Your task to perform on an android device: open a bookmark in the chrome app Image 0: 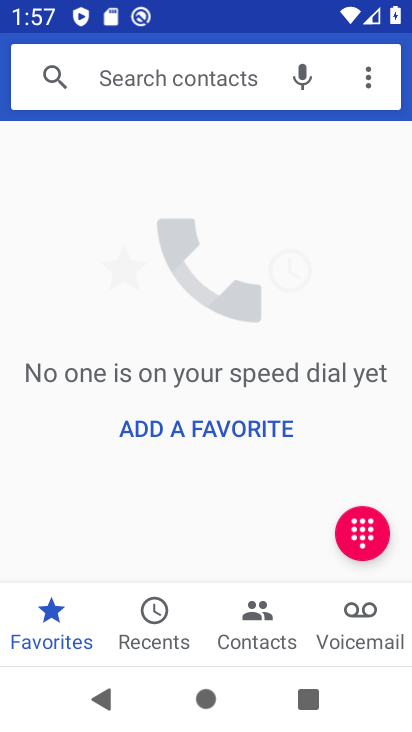
Step 0: press home button
Your task to perform on an android device: open a bookmark in the chrome app Image 1: 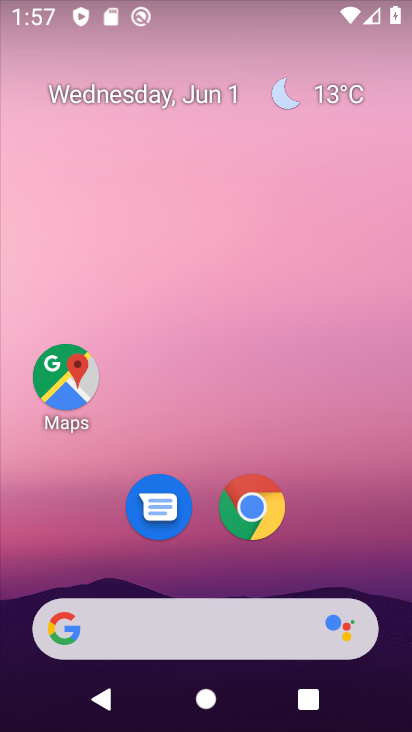
Step 1: click (254, 508)
Your task to perform on an android device: open a bookmark in the chrome app Image 2: 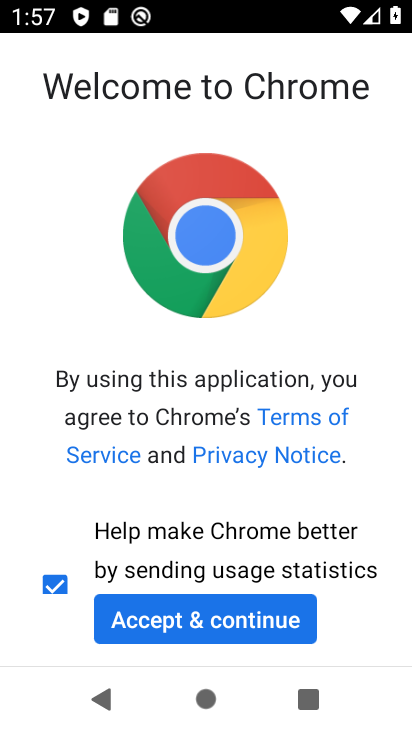
Step 2: click (188, 625)
Your task to perform on an android device: open a bookmark in the chrome app Image 3: 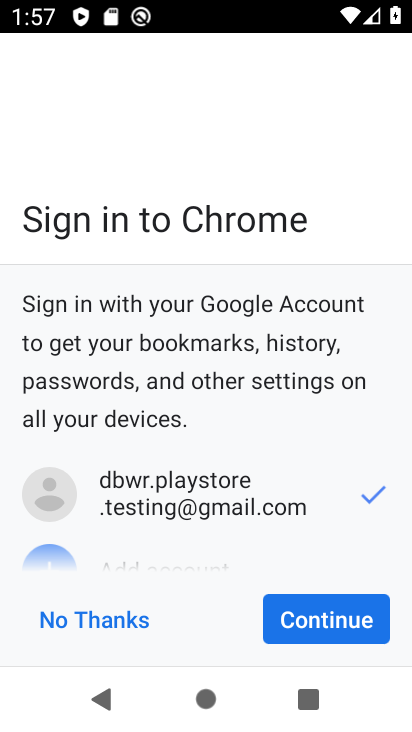
Step 3: click (133, 627)
Your task to perform on an android device: open a bookmark in the chrome app Image 4: 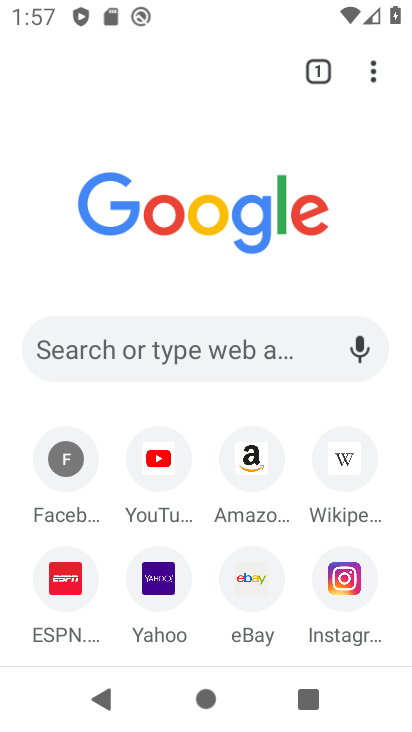
Step 4: click (376, 71)
Your task to perform on an android device: open a bookmark in the chrome app Image 5: 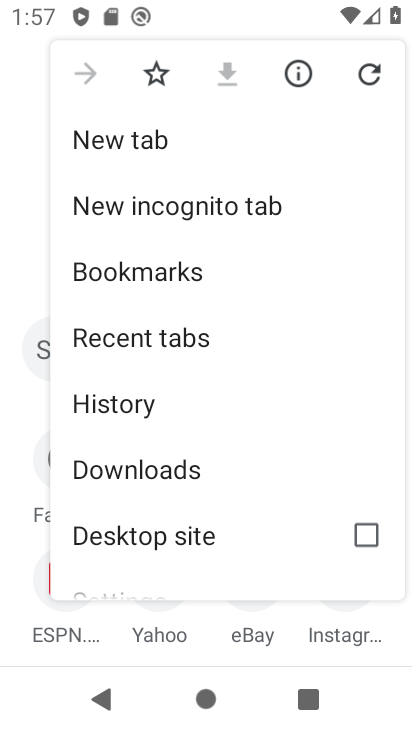
Step 5: click (119, 258)
Your task to perform on an android device: open a bookmark in the chrome app Image 6: 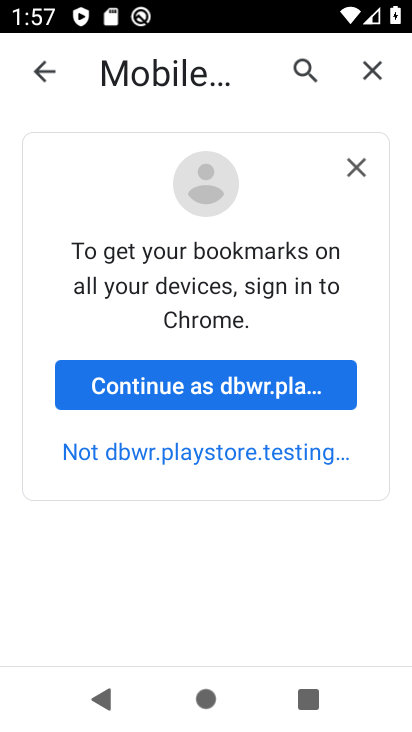
Step 6: click (168, 381)
Your task to perform on an android device: open a bookmark in the chrome app Image 7: 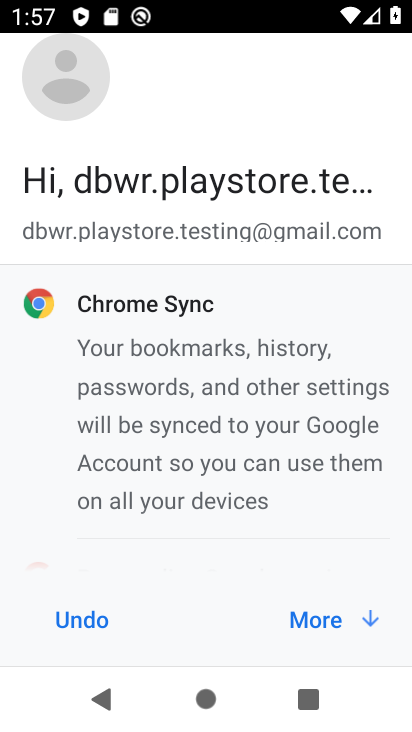
Step 7: click (309, 618)
Your task to perform on an android device: open a bookmark in the chrome app Image 8: 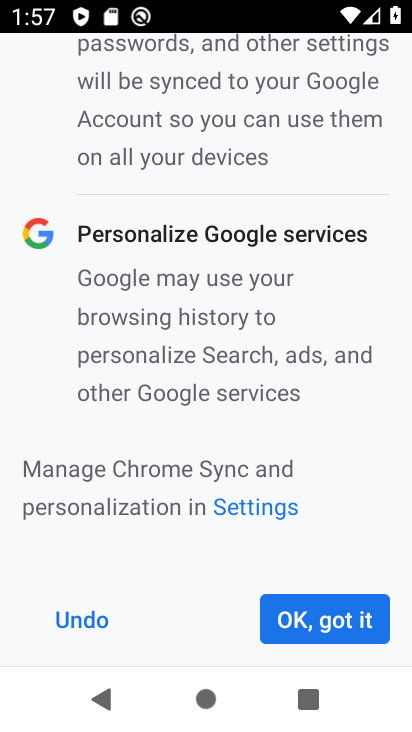
Step 8: click (309, 618)
Your task to perform on an android device: open a bookmark in the chrome app Image 9: 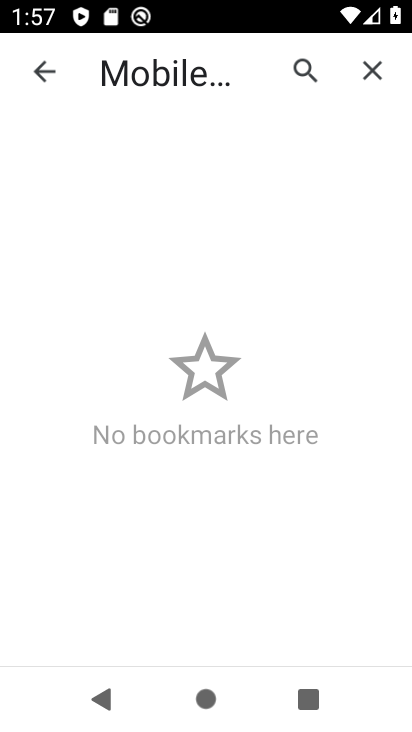
Step 9: task complete